Your task to perform on an android device: check storage Image 0: 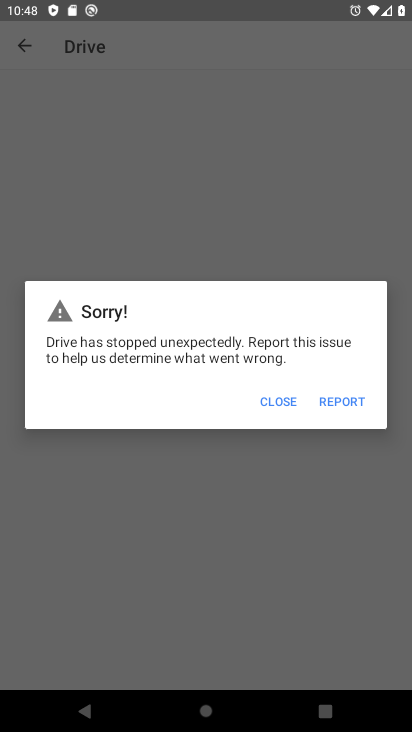
Step 0: press home button
Your task to perform on an android device: check storage Image 1: 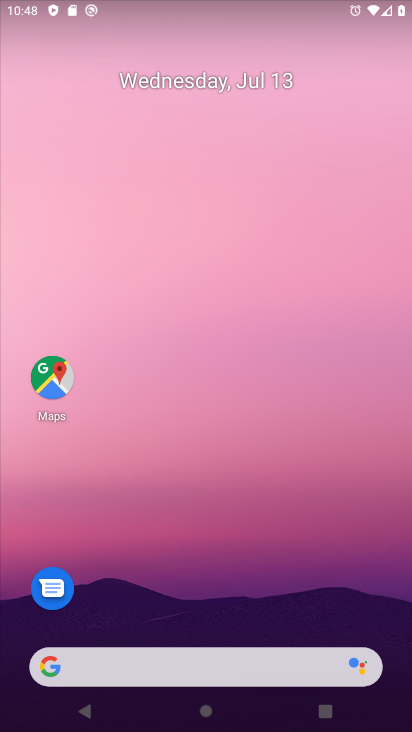
Step 1: drag from (188, 455) to (346, 43)
Your task to perform on an android device: check storage Image 2: 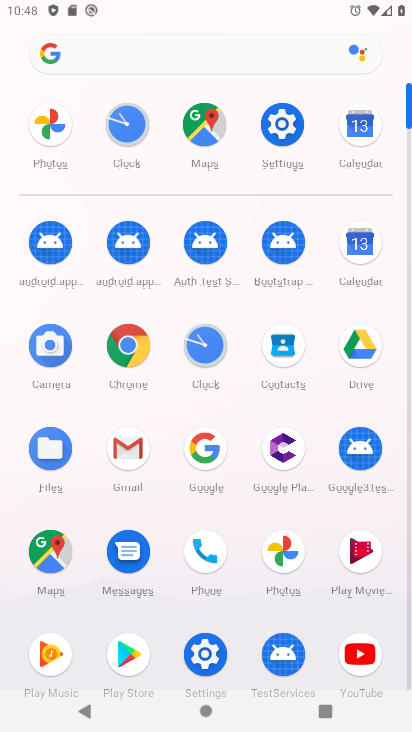
Step 2: click (267, 128)
Your task to perform on an android device: check storage Image 3: 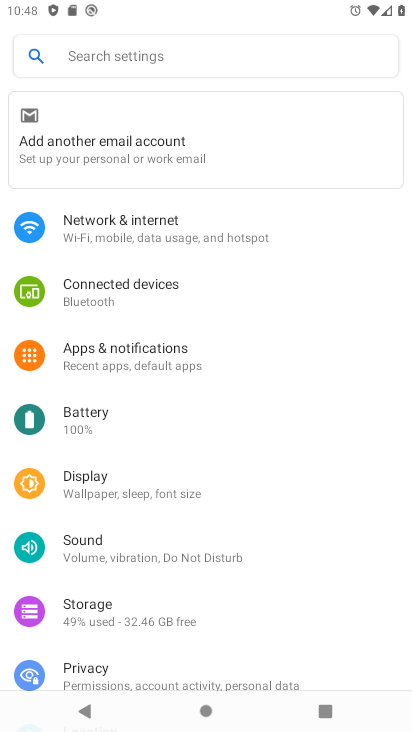
Step 3: click (120, 611)
Your task to perform on an android device: check storage Image 4: 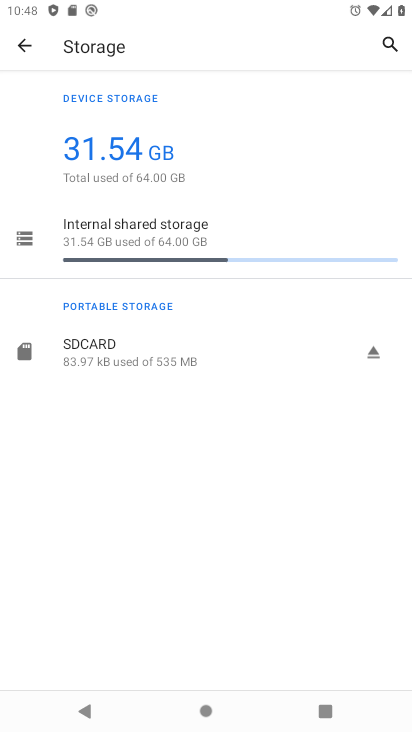
Step 4: task complete